Your task to perform on an android device: uninstall "McDonald's" Image 0: 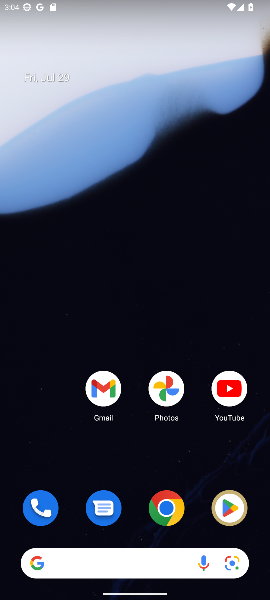
Step 0: drag from (235, 493) to (106, 9)
Your task to perform on an android device: uninstall "McDonald's" Image 1: 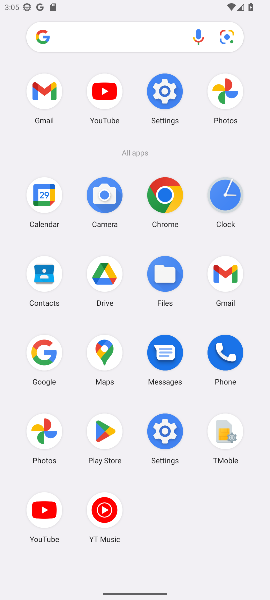
Step 1: click (97, 429)
Your task to perform on an android device: uninstall "McDonald's" Image 2: 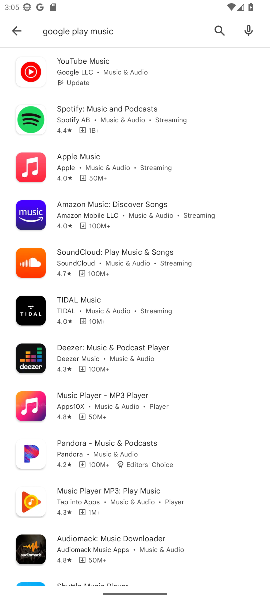
Step 2: press back button
Your task to perform on an android device: uninstall "McDonald's" Image 3: 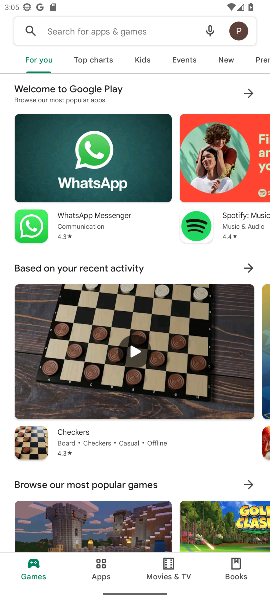
Step 3: click (89, 28)
Your task to perform on an android device: uninstall "McDonald's" Image 4: 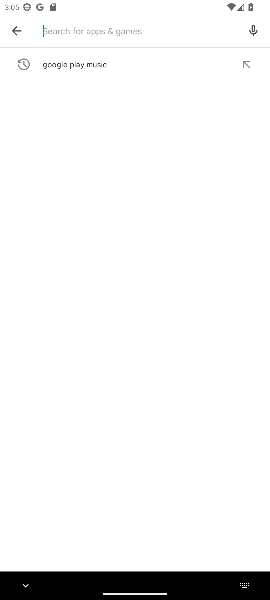
Step 4: type "McDonald's"
Your task to perform on an android device: uninstall "McDonald's" Image 5: 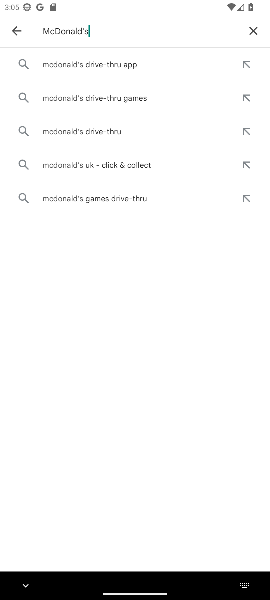
Step 5: click (71, 71)
Your task to perform on an android device: uninstall "McDonald's" Image 6: 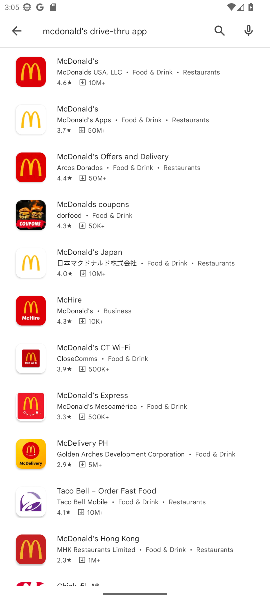
Step 6: click (74, 72)
Your task to perform on an android device: uninstall "McDonald's" Image 7: 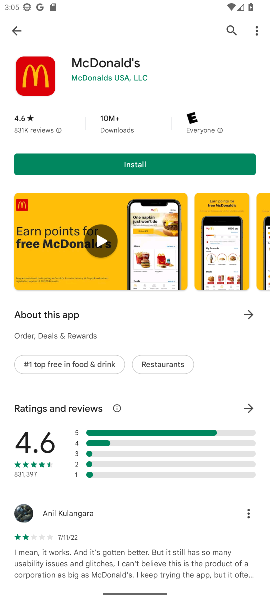
Step 7: task complete